Your task to perform on an android device: Go to wifi settings Image 0: 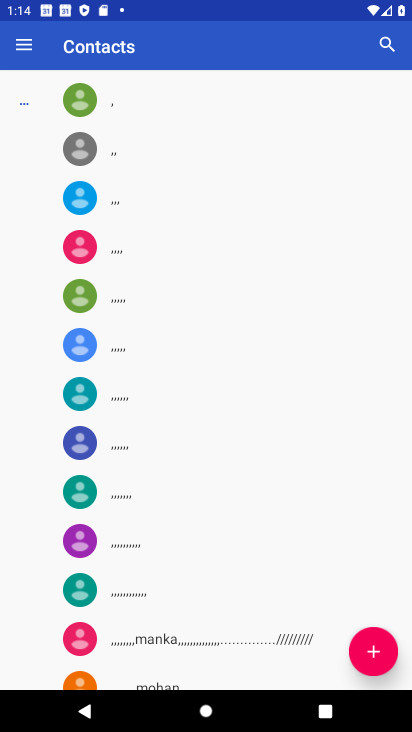
Step 0: task complete